Your task to perform on an android device: install app "McDonald's" Image 0: 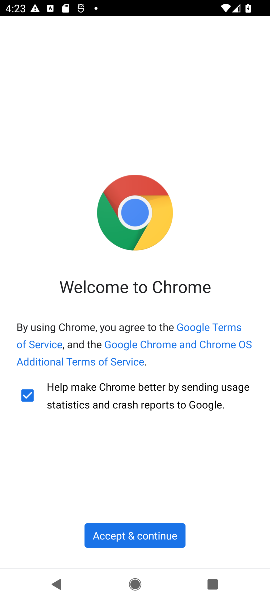
Step 0: press home button
Your task to perform on an android device: install app "McDonald's" Image 1: 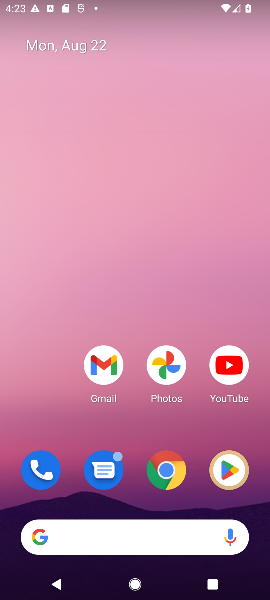
Step 1: drag from (104, 513) to (106, 58)
Your task to perform on an android device: install app "McDonald's" Image 2: 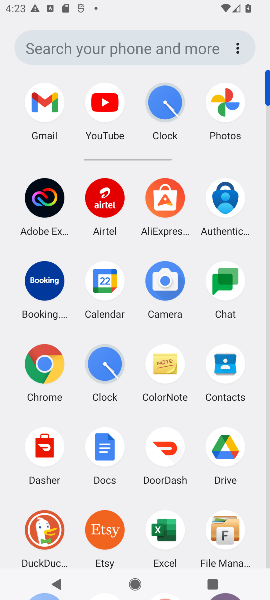
Step 2: drag from (110, 518) to (136, 99)
Your task to perform on an android device: install app "McDonald's" Image 3: 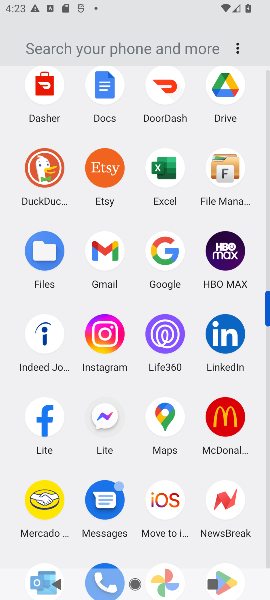
Step 3: drag from (128, 464) to (144, 124)
Your task to perform on an android device: install app "McDonald's" Image 4: 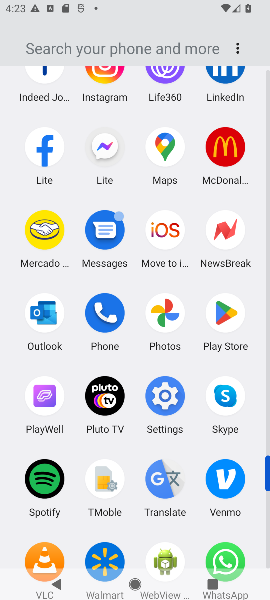
Step 4: drag from (145, 515) to (170, 161)
Your task to perform on an android device: install app "McDonald's" Image 5: 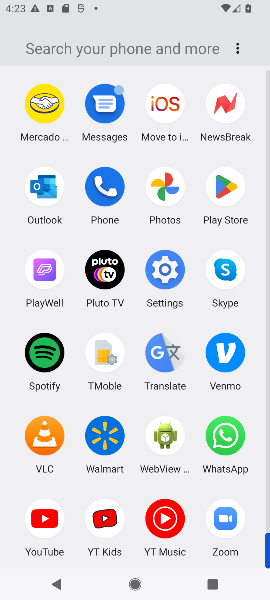
Step 5: drag from (120, 489) to (142, 63)
Your task to perform on an android device: install app "McDonald's" Image 6: 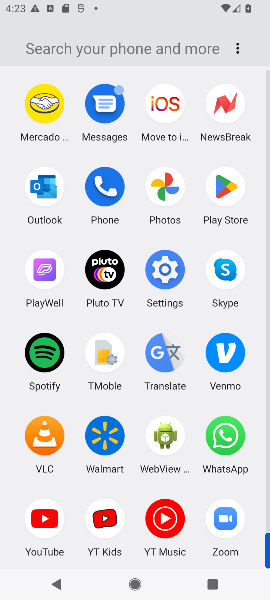
Step 6: drag from (123, 75) to (106, 597)
Your task to perform on an android device: install app "McDonald's" Image 7: 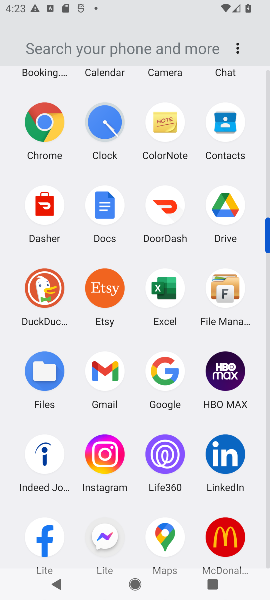
Step 7: drag from (122, 107) to (131, 567)
Your task to perform on an android device: install app "McDonald's" Image 8: 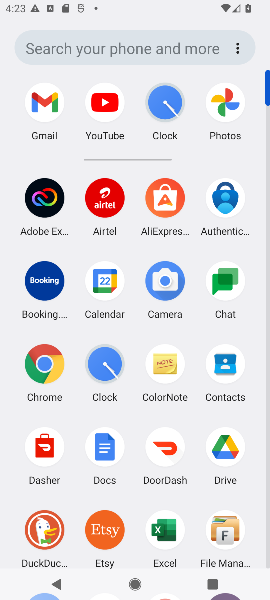
Step 8: drag from (130, 483) to (138, 160)
Your task to perform on an android device: install app "McDonald's" Image 9: 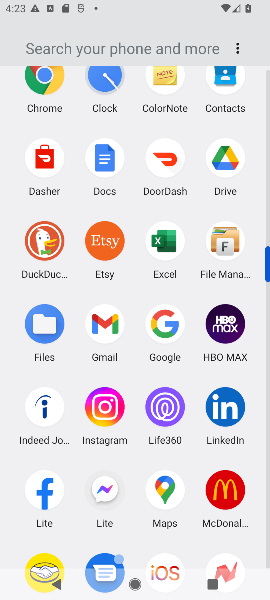
Step 9: drag from (107, 482) to (130, 86)
Your task to perform on an android device: install app "McDonald's" Image 10: 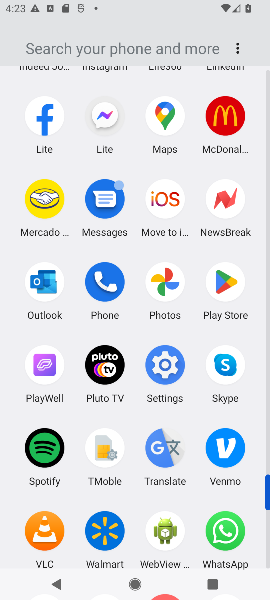
Step 10: click (222, 271)
Your task to perform on an android device: install app "McDonald's" Image 11: 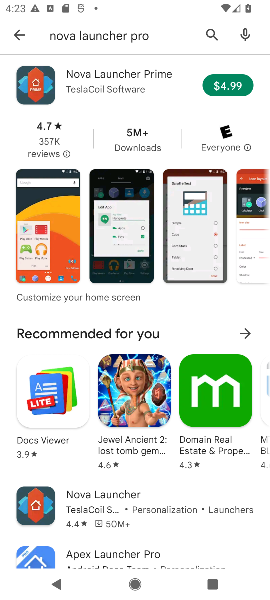
Step 11: click (14, 38)
Your task to perform on an android device: install app "McDonald's" Image 12: 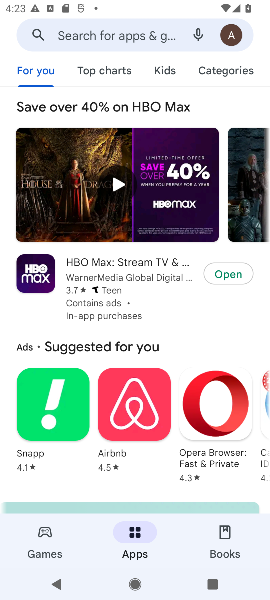
Step 12: click (100, 33)
Your task to perform on an android device: install app "McDonald's" Image 13: 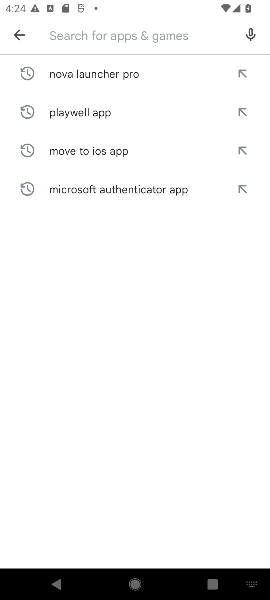
Step 13: type "McDonald's "
Your task to perform on an android device: install app "McDonald's" Image 14: 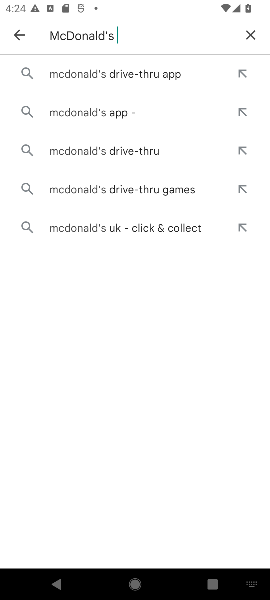
Step 14: click (130, 66)
Your task to perform on an android device: install app "McDonald's" Image 15: 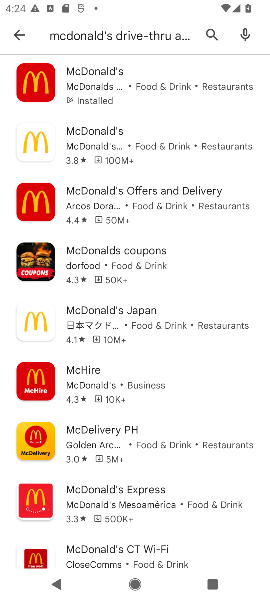
Step 15: click (93, 82)
Your task to perform on an android device: install app "McDonald's" Image 16: 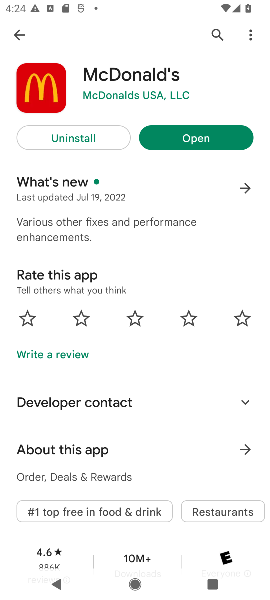
Step 16: click (179, 139)
Your task to perform on an android device: install app "McDonald's" Image 17: 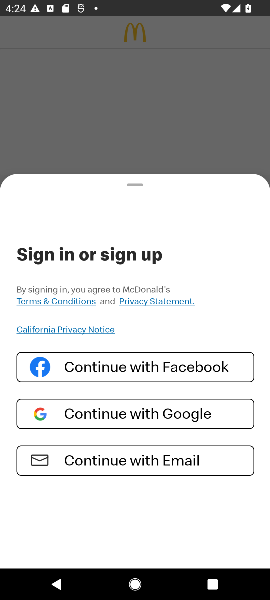
Step 17: task complete